Your task to perform on an android device: Set the phone to "Do not disturb". Image 0: 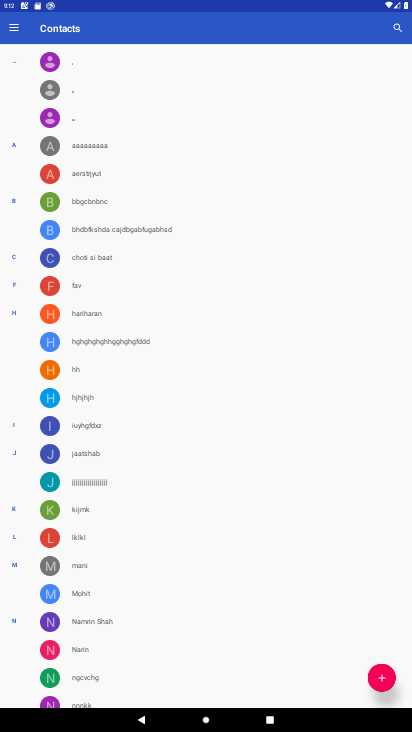
Step 0: click (407, 343)
Your task to perform on an android device: Set the phone to "Do not disturb". Image 1: 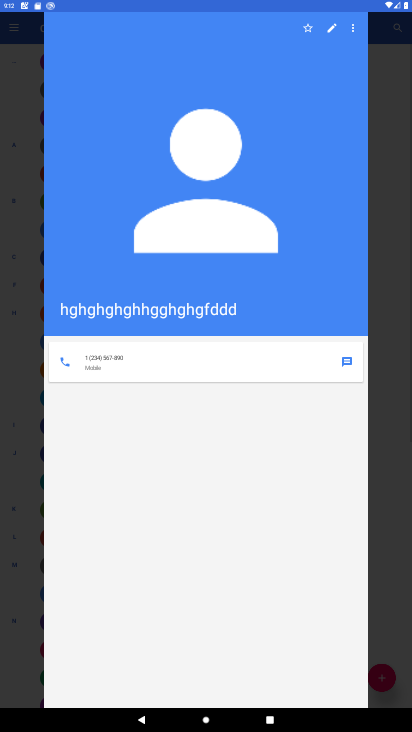
Step 1: press home button
Your task to perform on an android device: Set the phone to "Do not disturb". Image 2: 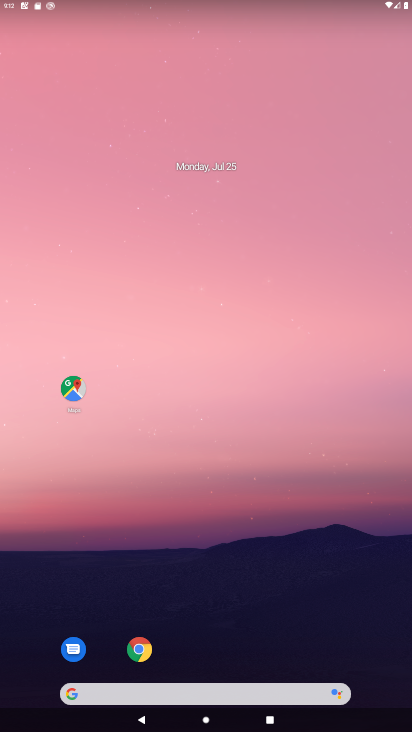
Step 2: drag from (161, 2) to (161, 306)
Your task to perform on an android device: Set the phone to "Do not disturb". Image 3: 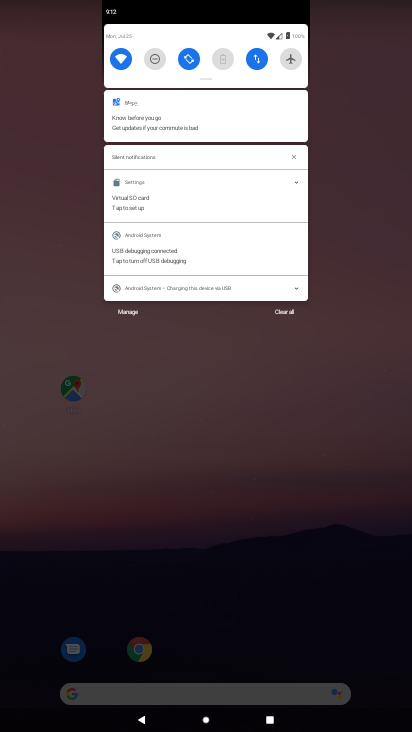
Step 3: click (153, 59)
Your task to perform on an android device: Set the phone to "Do not disturb". Image 4: 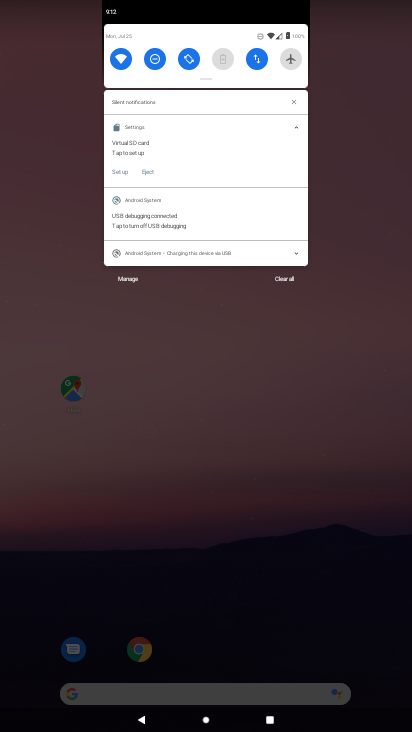
Step 4: task complete